Your task to perform on an android device: set the stopwatch Image 0: 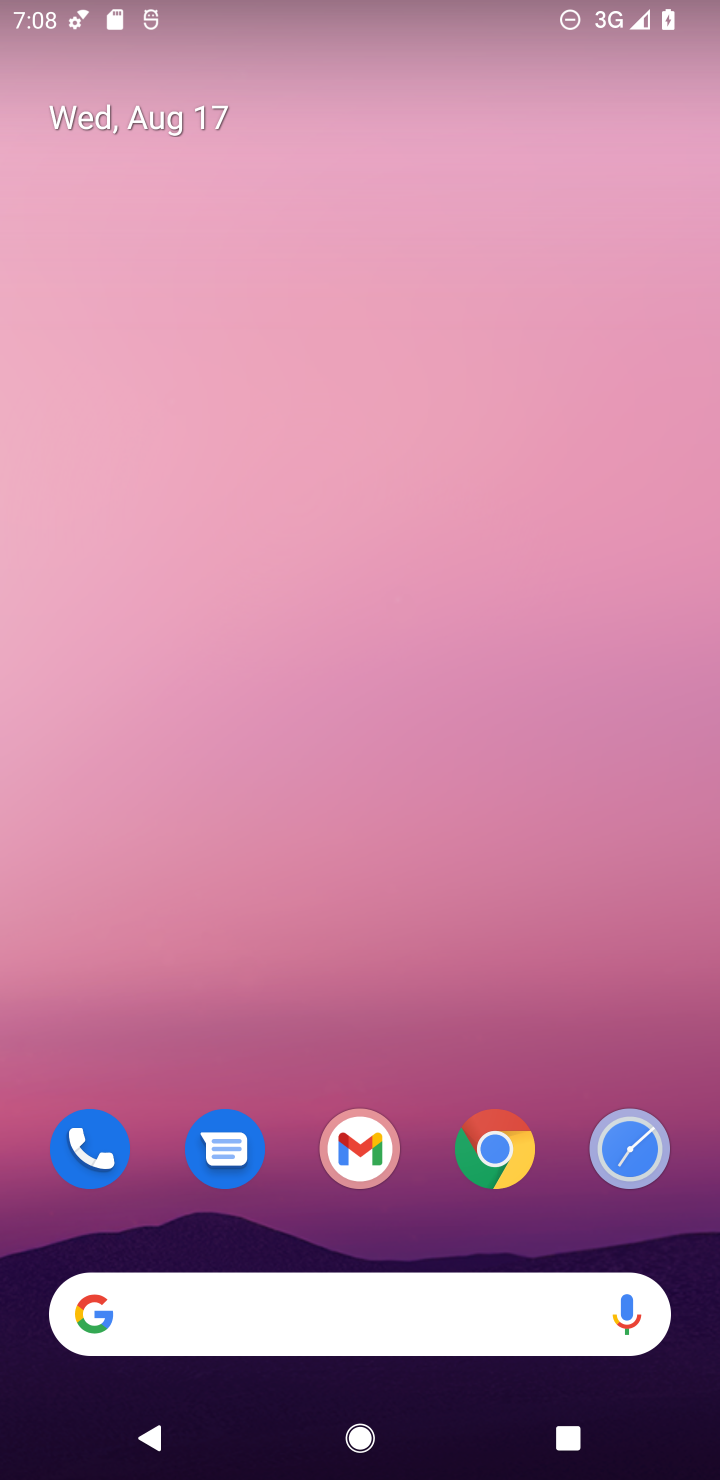
Step 0: click (640, 1140)
Your task to perform on an android device: set the stopwatch Image 1: 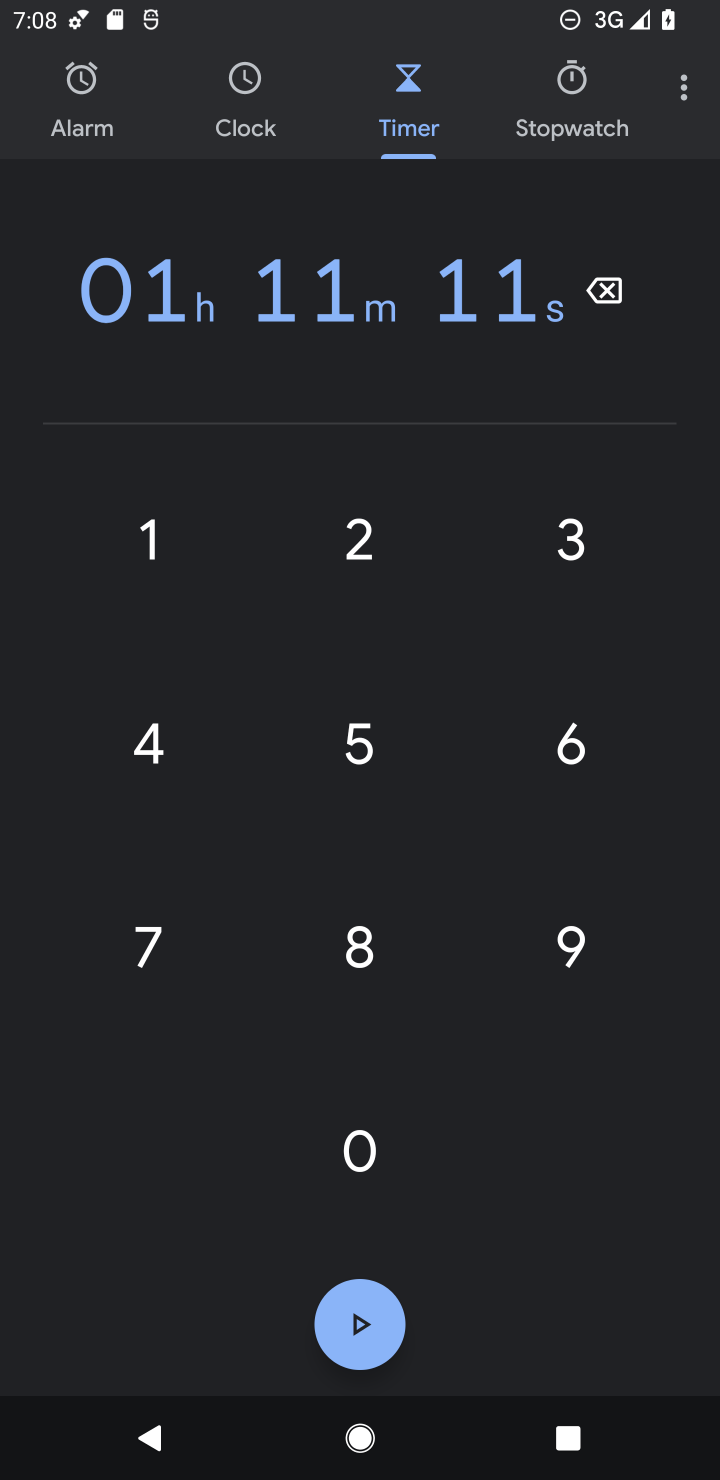
Step 1: click (569, 71)
Your task to perform on an android device: set the stopwatch Image 2: 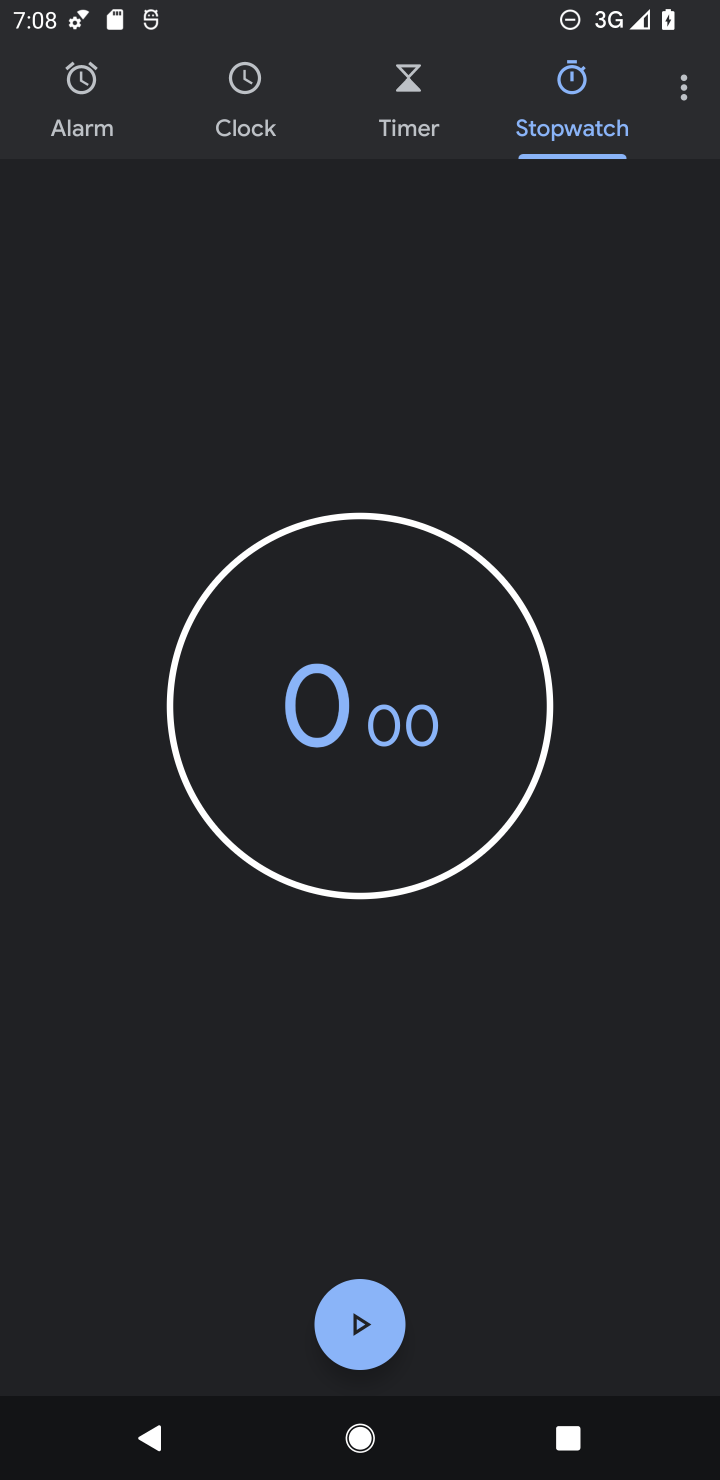
Step 2: task complete